Your task to perform on an android device: choose inbox layout in the gmail app Image 0: 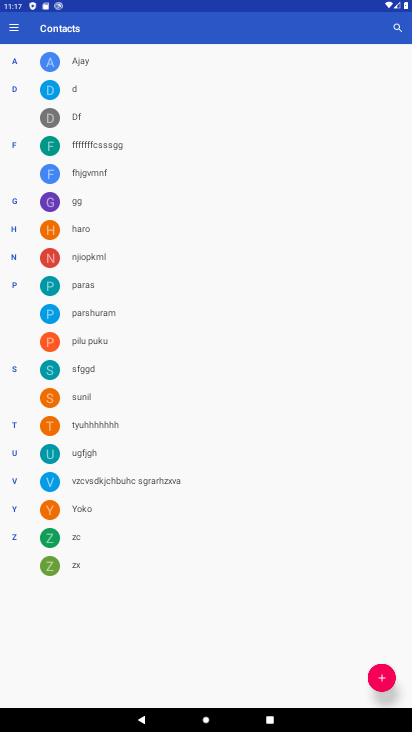
Step 0: press home button
Your task to perform on an android device: choose inbox layout in the gmail app Image 1: 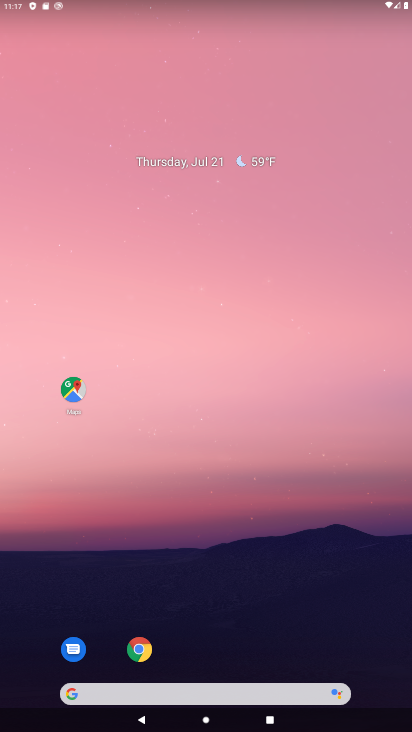
Step 1: drag from (157, 549) to (257, 10)
Your task to perform on an android device: choose inbox layout in the gmail app Image 2: 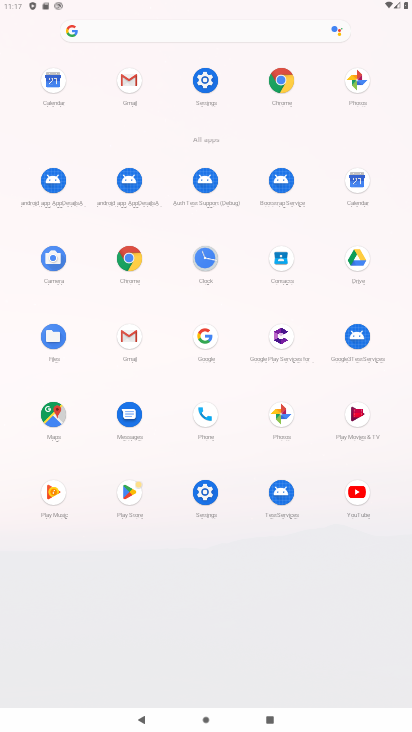
Step 2: click (139, 332)
Your task to perform on an android device: choose inbox layout in the gmail app Image 3: 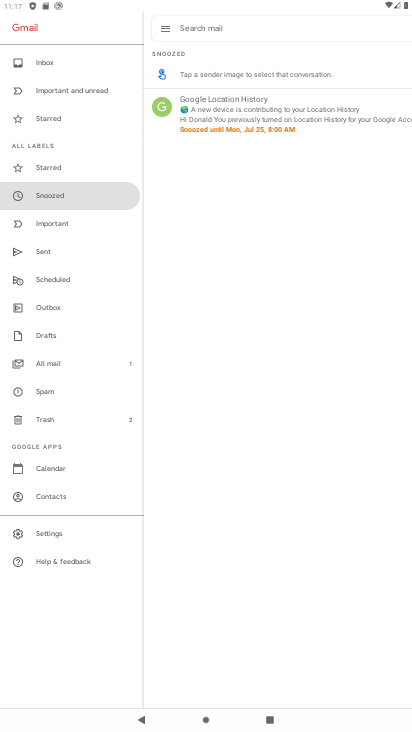
Step 3: click (46, 535)
Your task to perform on an android device: choose inbox layout in the gmail app Image 4: 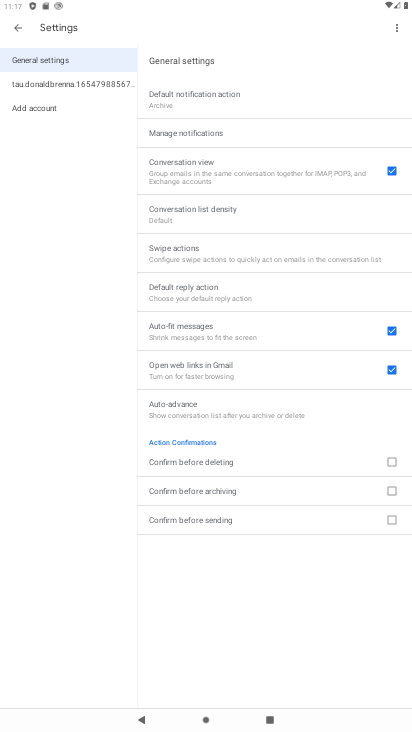
Step 4: click (100, 78)
Your task to perform on an android device: choose inbox layout in the gmail app Image 5: 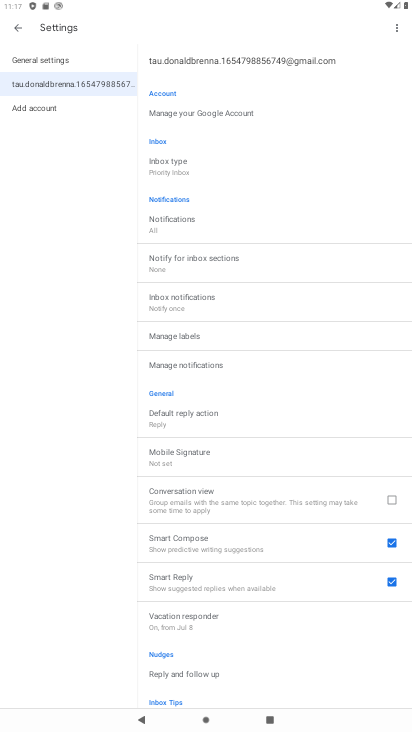
Step 5: click (150, 163)
Your task to perform on an android device: choose inbox layout in the gmail app Image 6: 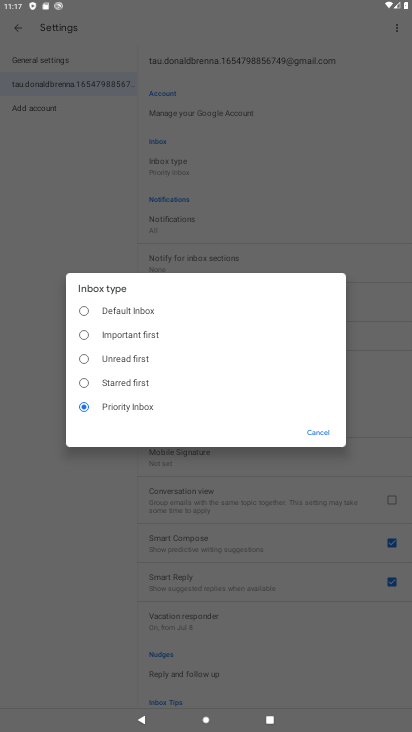
Step 6: click (137, 307)
Your task to perform on an android device: choose inbox layout in the gmail app Image 7: 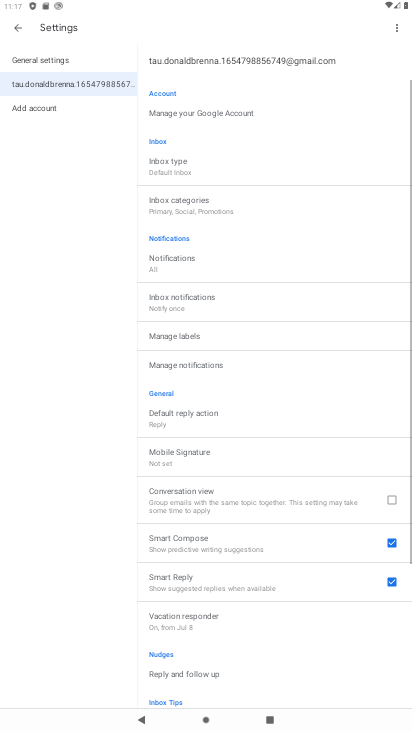
Step 7: task complete